Your task to perform on an android device: open app "Google Play Games" (install if not already installed) Image 0: 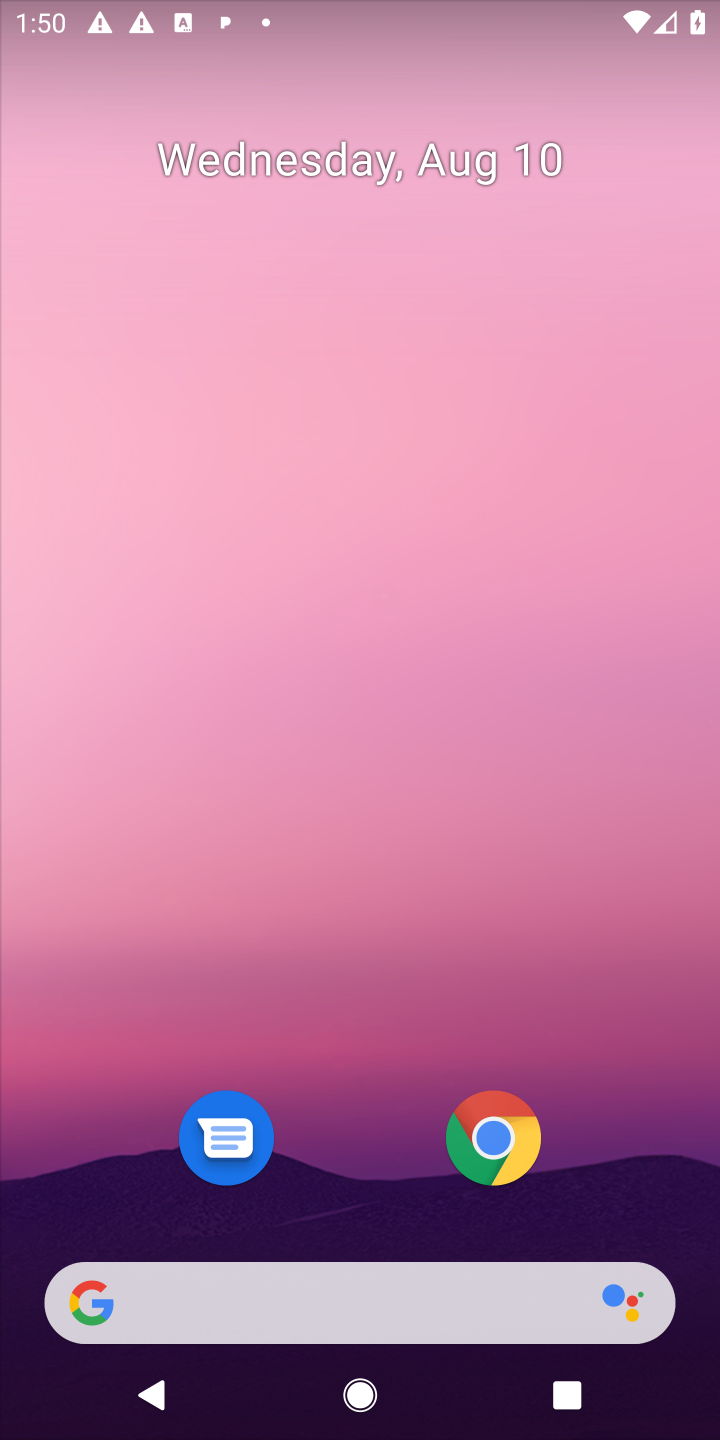
Step 0: drag from (622, 963) to (626, 112)
Your task to perform on an android device: open app "Google Play Games" (install if not already installed) Image 1: 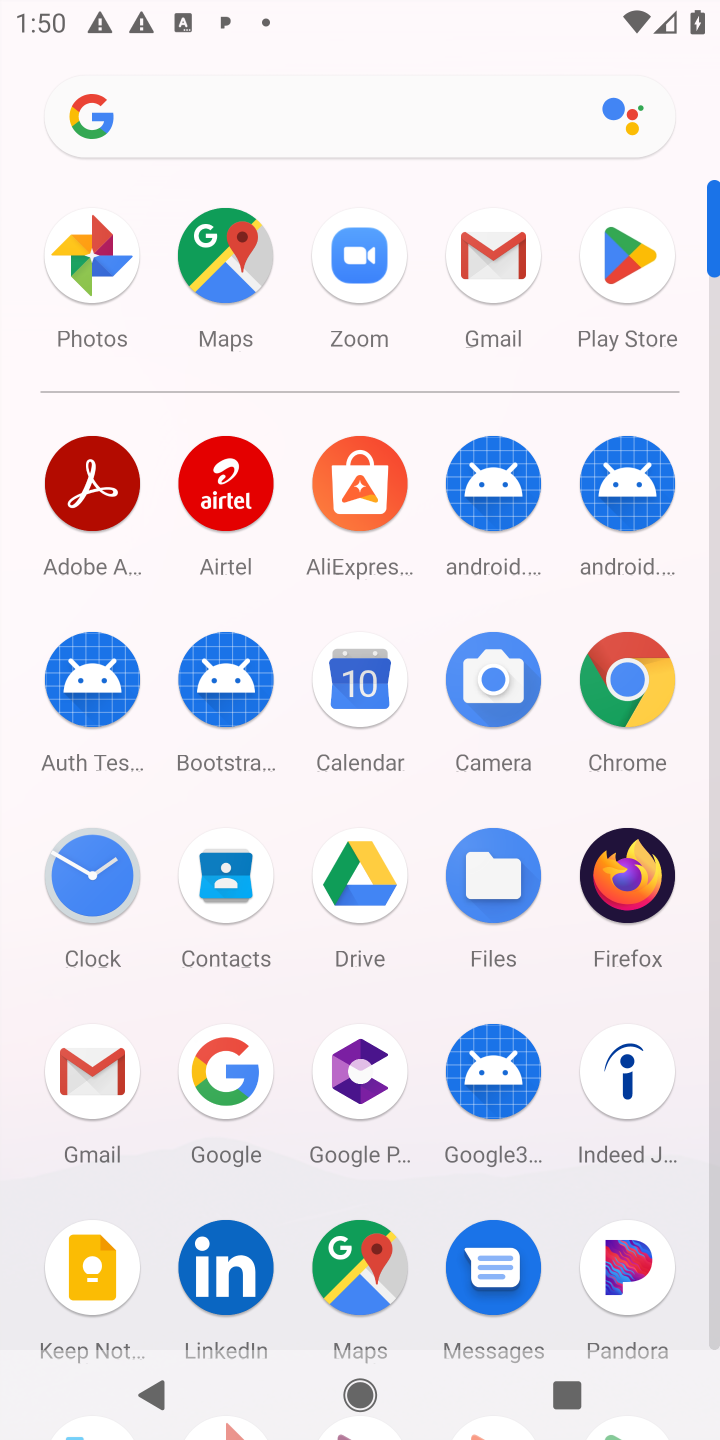
Step 1: click (619, 258)
Your task to perform on an android device: open app "Google Play Games" (install if not already installed) Image 2: 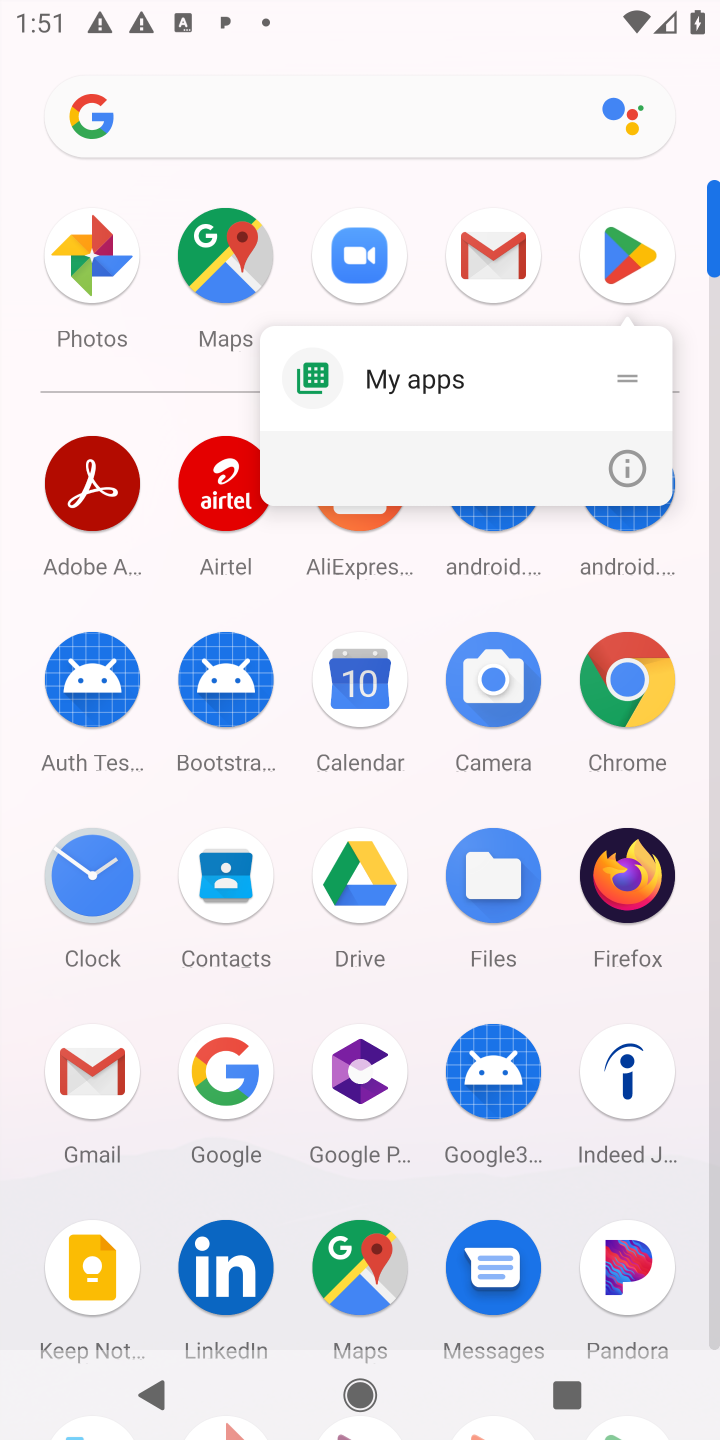
Step 2: click (619, 252)
Your task to perform on an android device: open app "Google Play Games" (install if not already installed) Image 3: 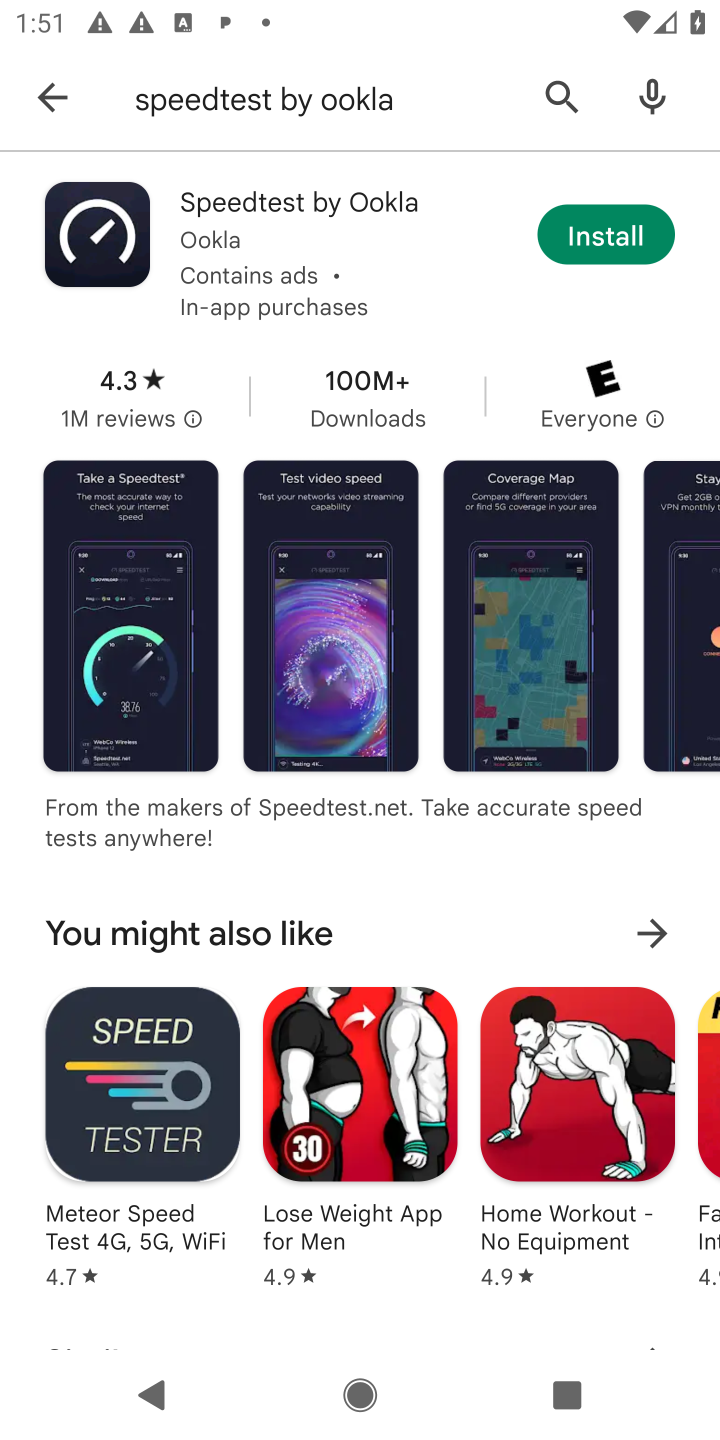
Step 3: click (553, 99)
Your task to perform on an android device: open app "Google Play Games" (install if not already installed) Image 4: 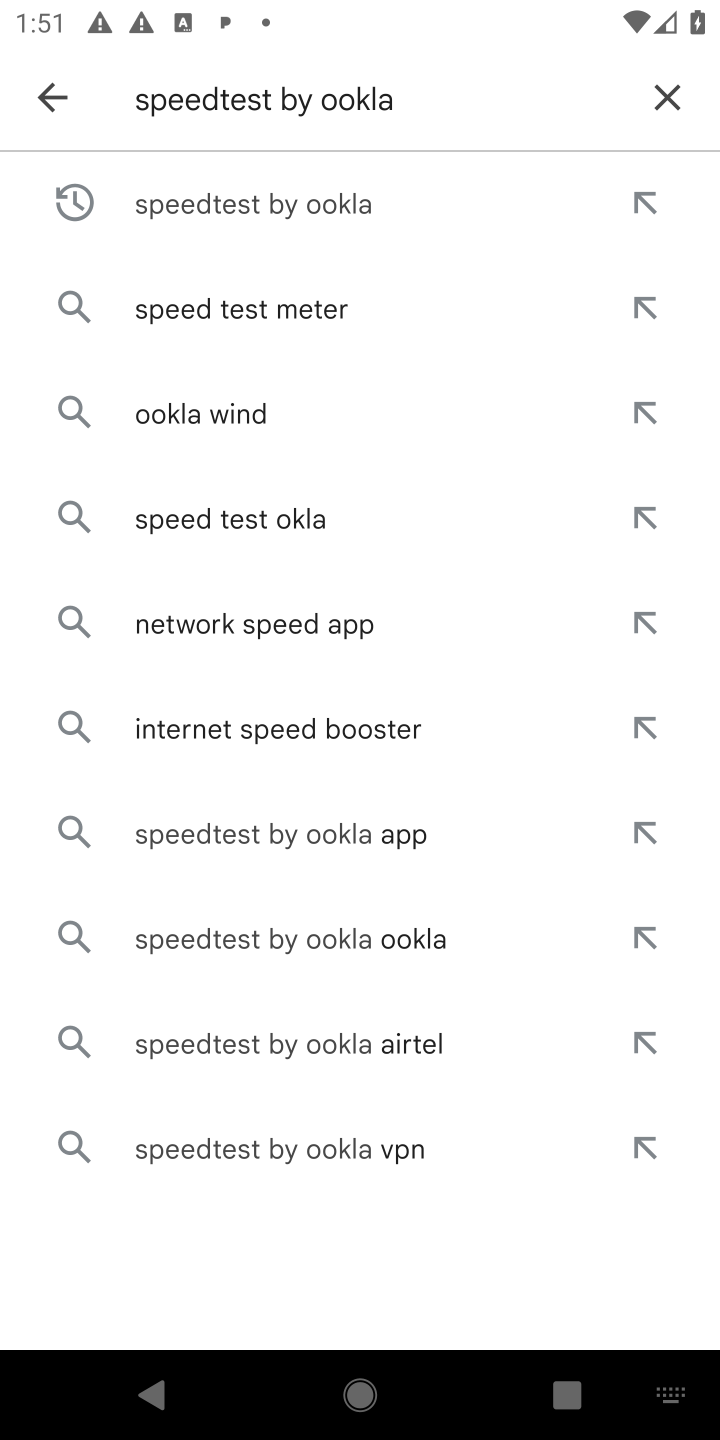
Step 4: click (664, 101)
Your task to perform on an android device: open app "Google Play Games" (install if not already installed) Image 5: 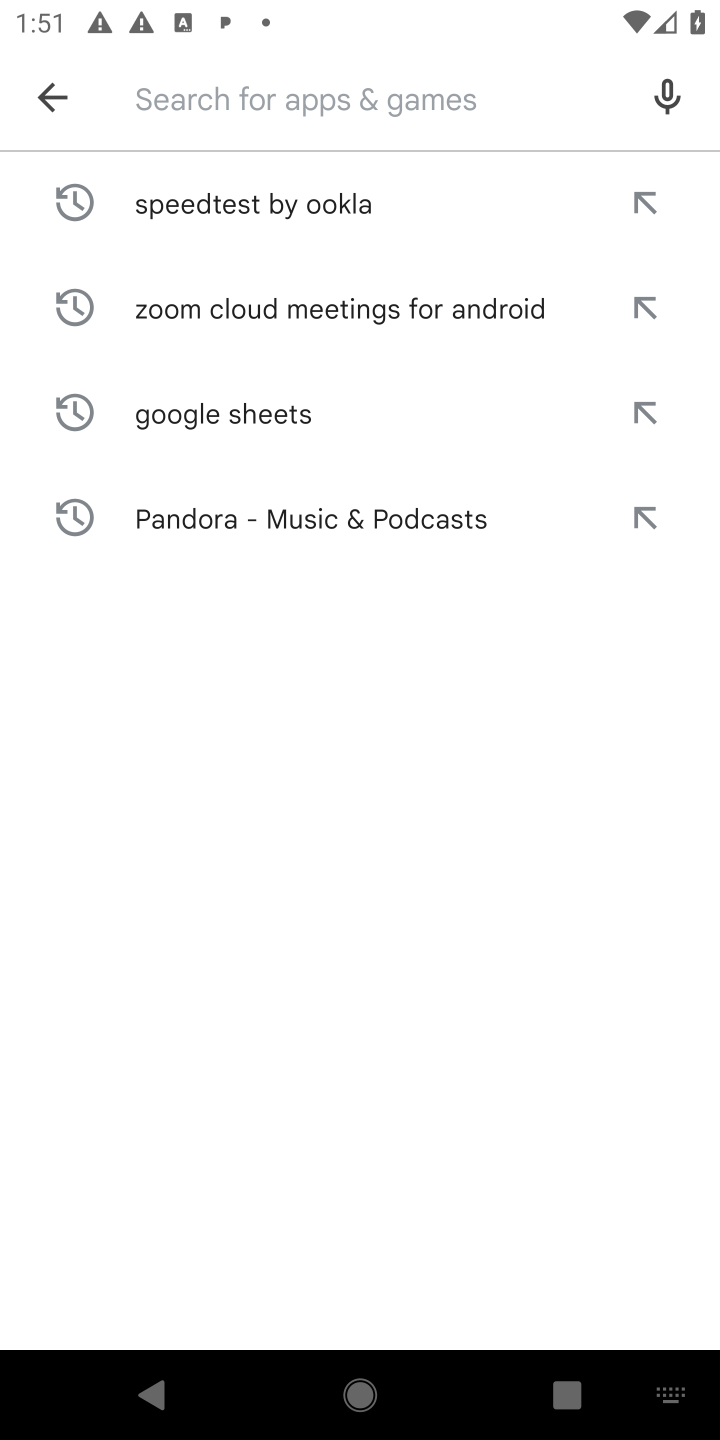
Step 5: click (302, 105)
Your task to perform on an android device: open app "Google Play Games" (install if not already installed) Image 6: 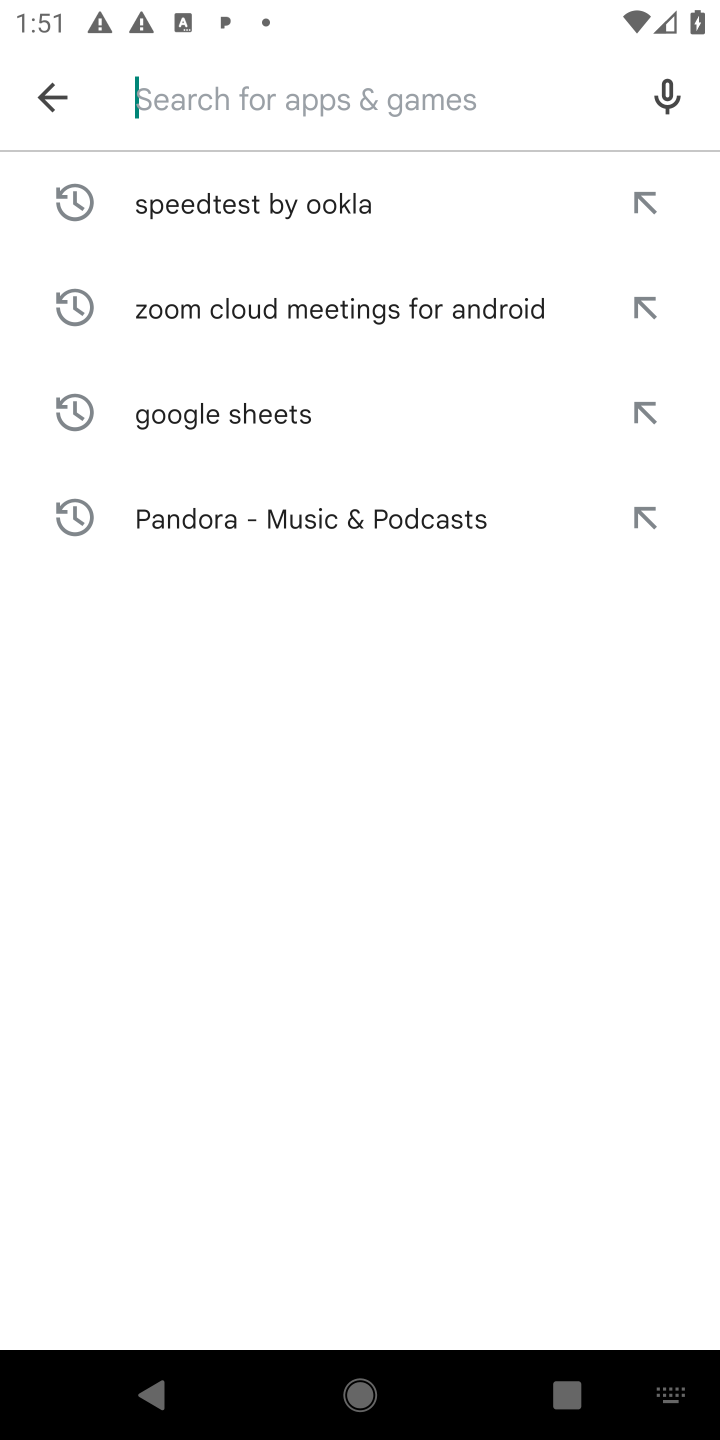
Step 6: type "Google Play Games"
Your task to perform on an android device: open app "Google Play Games" (install if not already installed) Image 7: 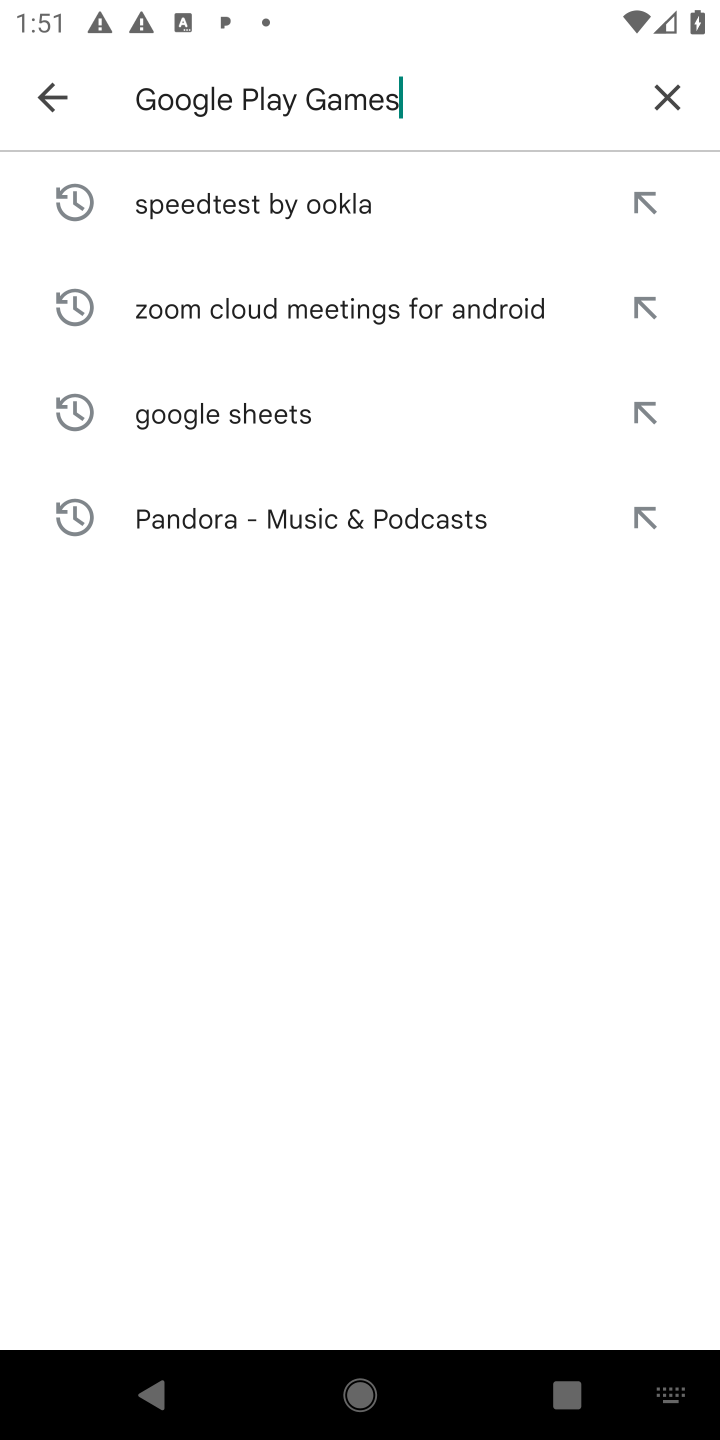
Step 7: press enter
Your task to perform on an android device: open app "Google Play Games" (install if not already installed) Image 8: 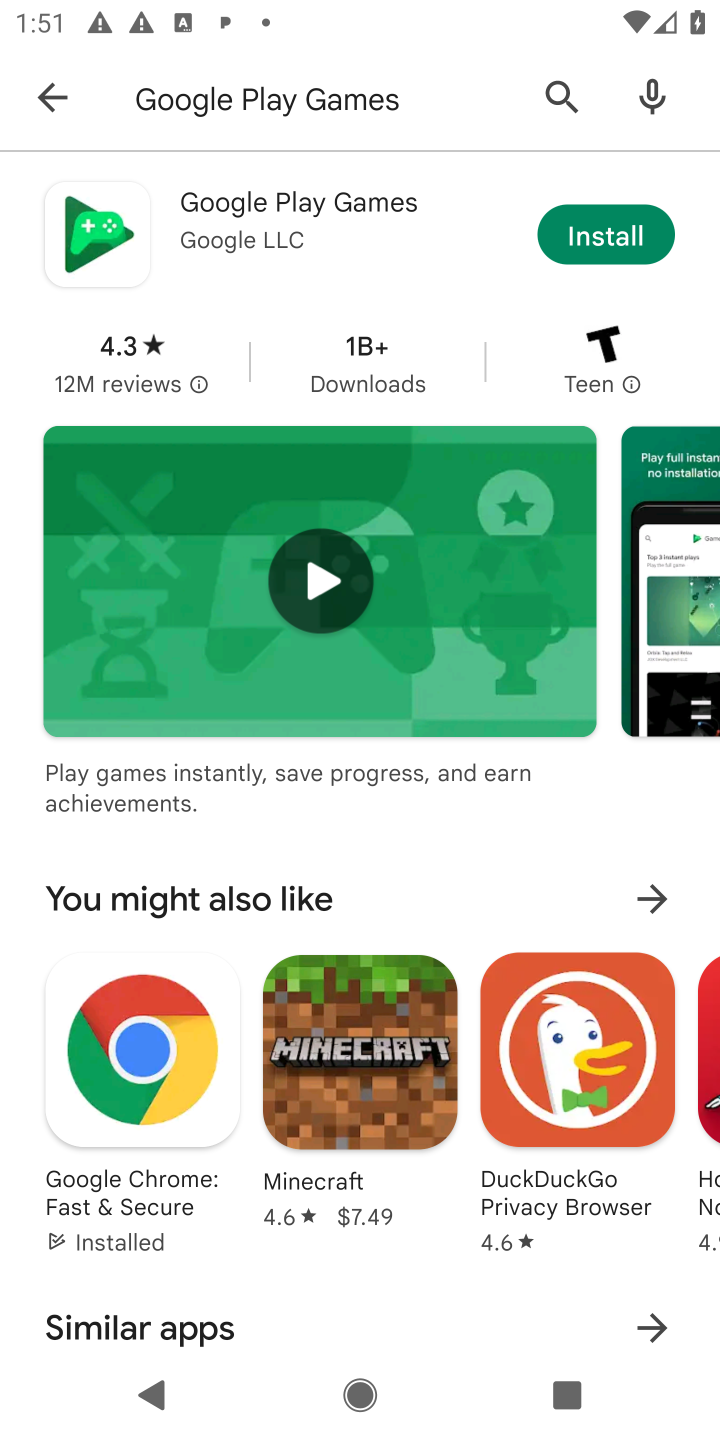
Step 8: click (603, 236)
Your task to perform on an android device: open app "Google Play Games" (install if not already installed) Image 9: 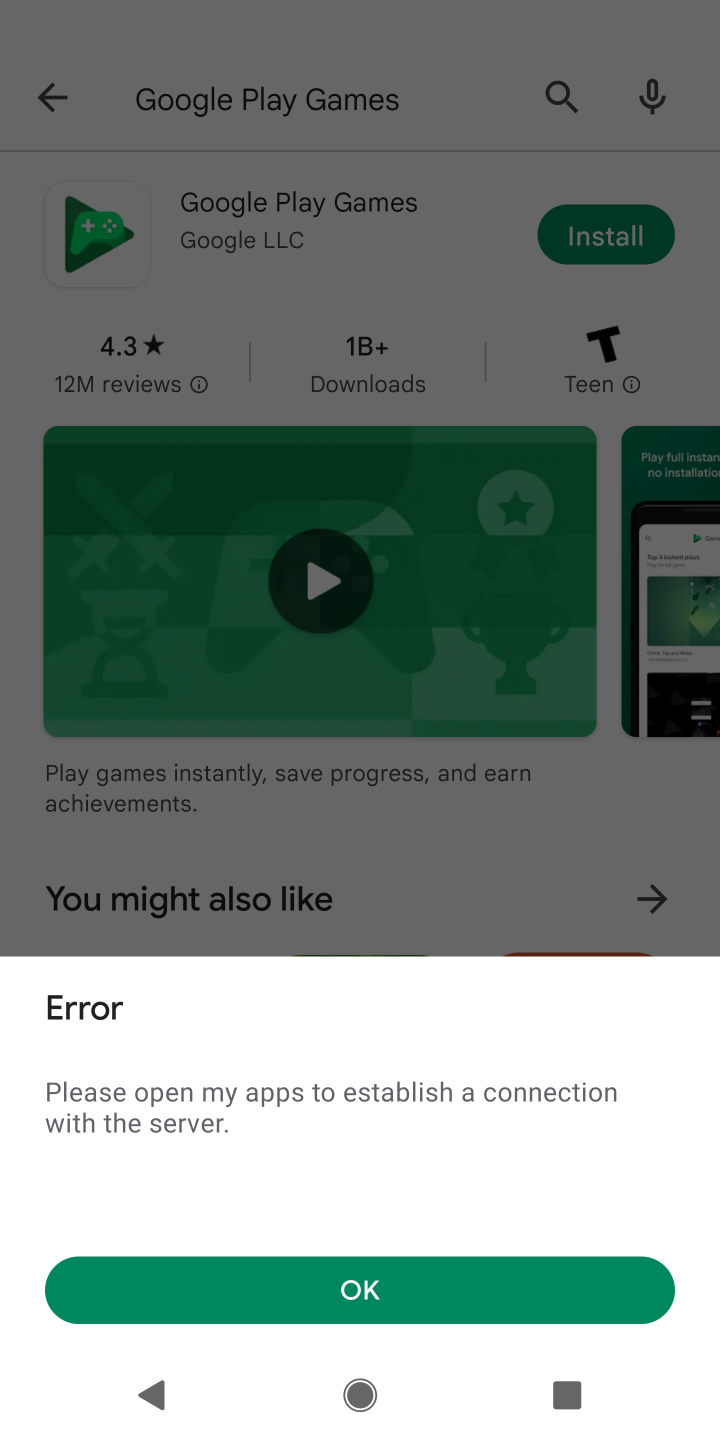
Step 9: task complete